Your task to perform on an android device: add a contact Image 0: 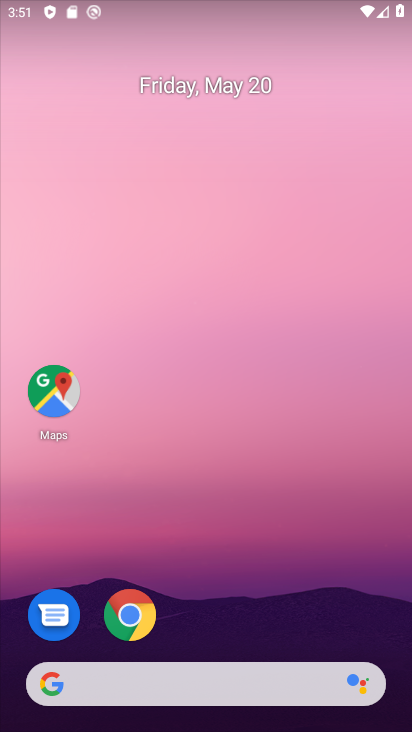
Step 0: drag from (233, 632) to (307, 182)
Your task to perform on an android device: add a contact Image 1: 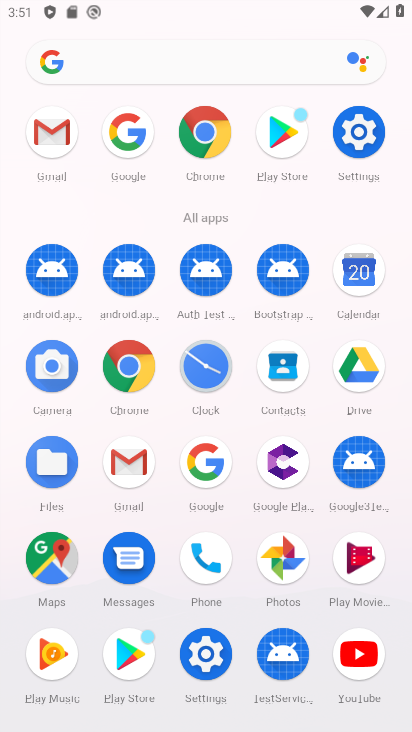
Step 1: click (286, 381)
Your task to perform on an android device: add a contact Image 2: 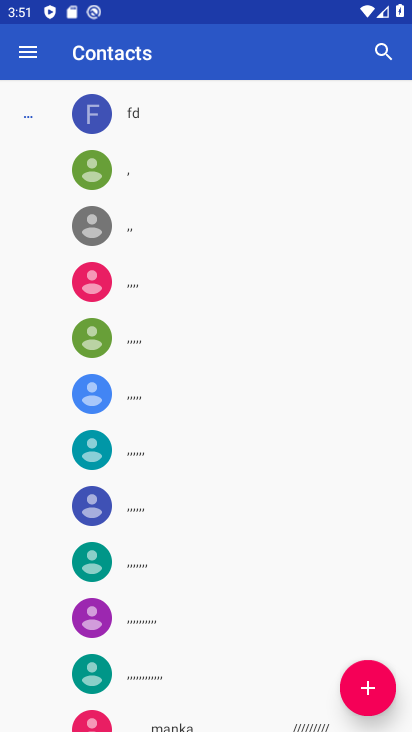
Step 2: click (374, 699)
Your task to perform on an android device: add a contact Image 3: 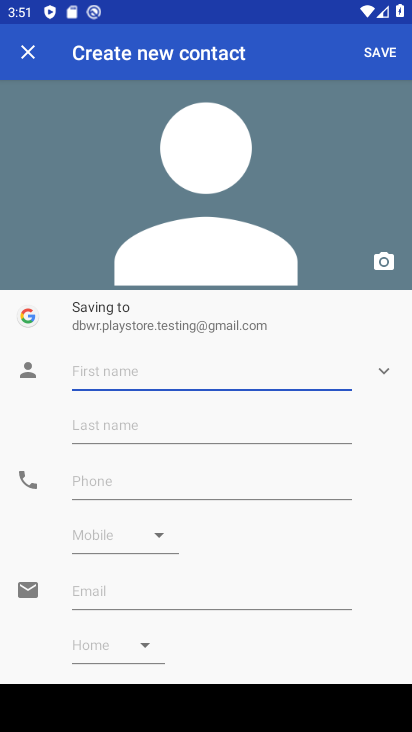
Step 3: type "ghghgmv"
Your task to perform on an android device: add a contact Image 4: 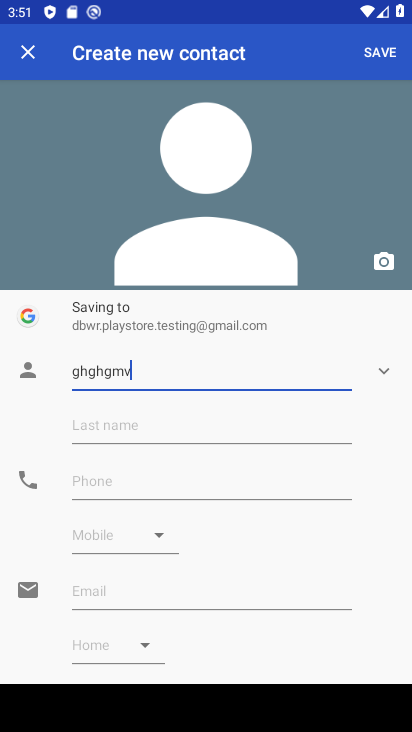
Step 4: click (173, 485)
Your task to perform on an android device: add a contact Image 5: 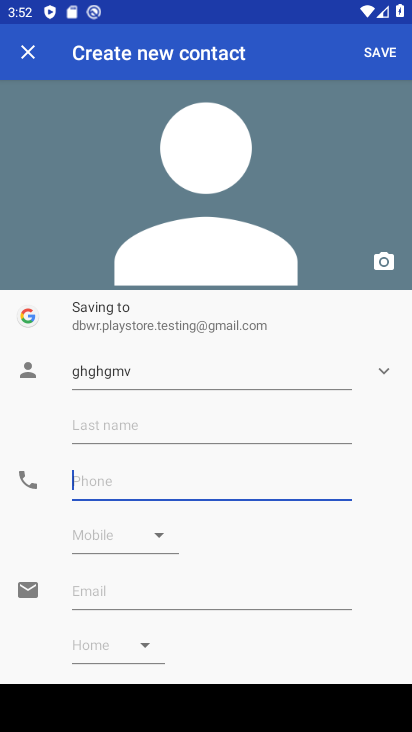
Step 5: type "8978877897"
Your task to perform on an android device: add a contact Image 6: 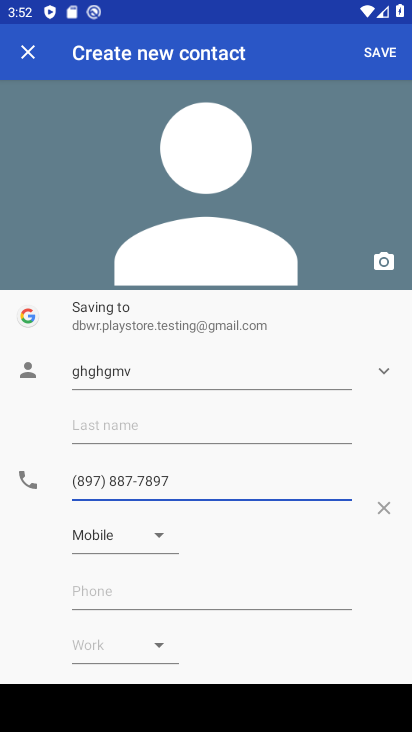
Step 6: click (380, 62)
Your task to perform on an android device: add a contact Image 7: 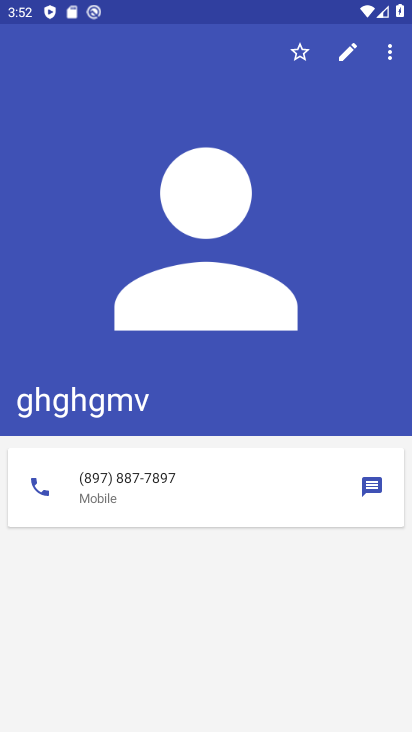
Step 7: task complete